Your task to perform on an android device: open app "Mercado Libre" (install if not already installed) Image 0: 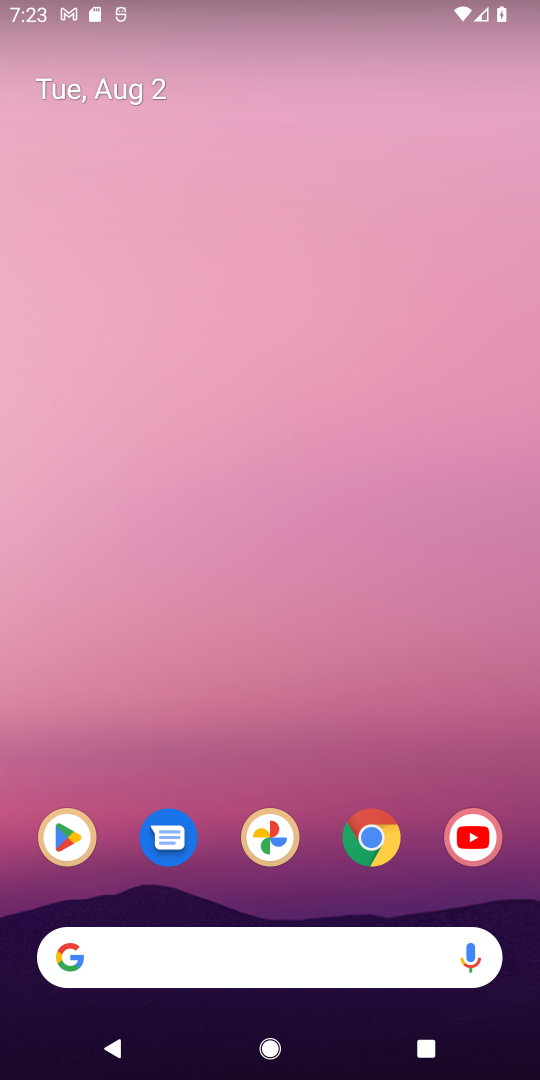
Step 0: drag from (251, 796) to (284, 203)
Your task to perform on an android device: open app "Mercado Libre" (install if not already installed) Image 1: 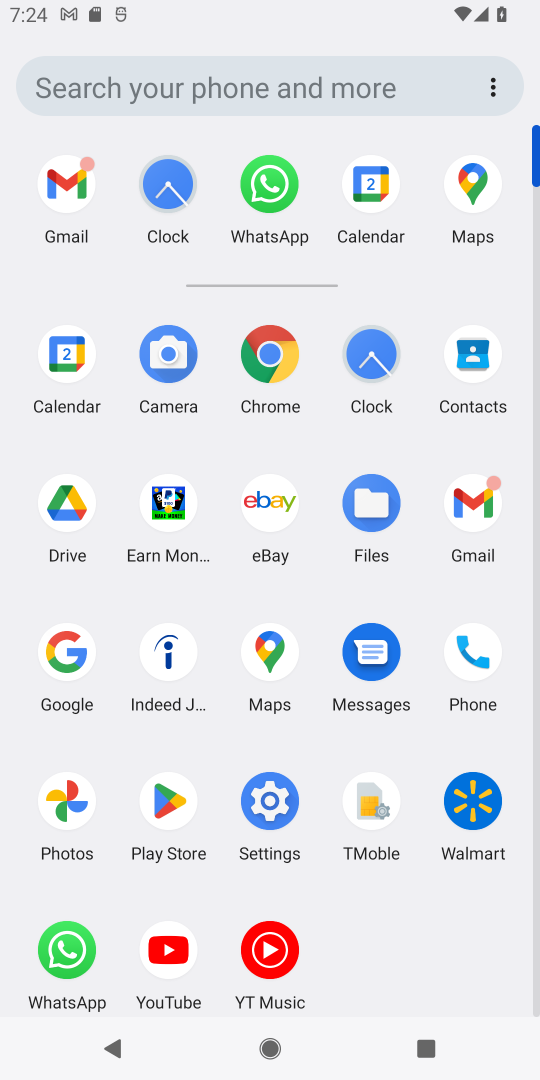
Step 1: click (161, 788)
Your task to perform on an android device: open app "Mercado Libre" (install if not already installed) Image 2: 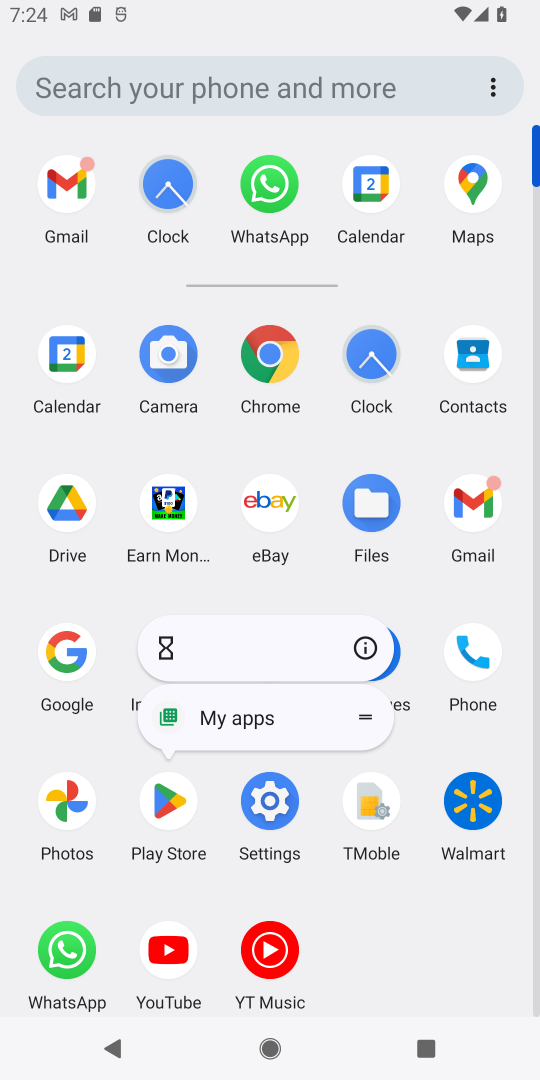
Step 2: click (360, 648)
Your task to perform on an android device: open app "Mercado Libre" (install if not already installed) Image 3: 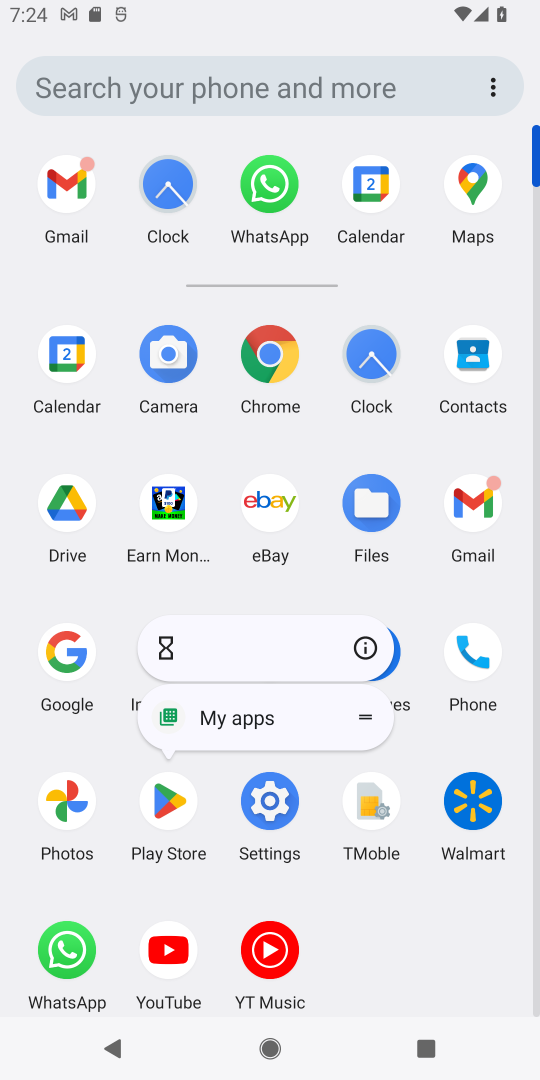
Step 3: click (359, 646)
Your task to perform on an android device: open app "Mercado Libre" (install if not already installed) Image 4: 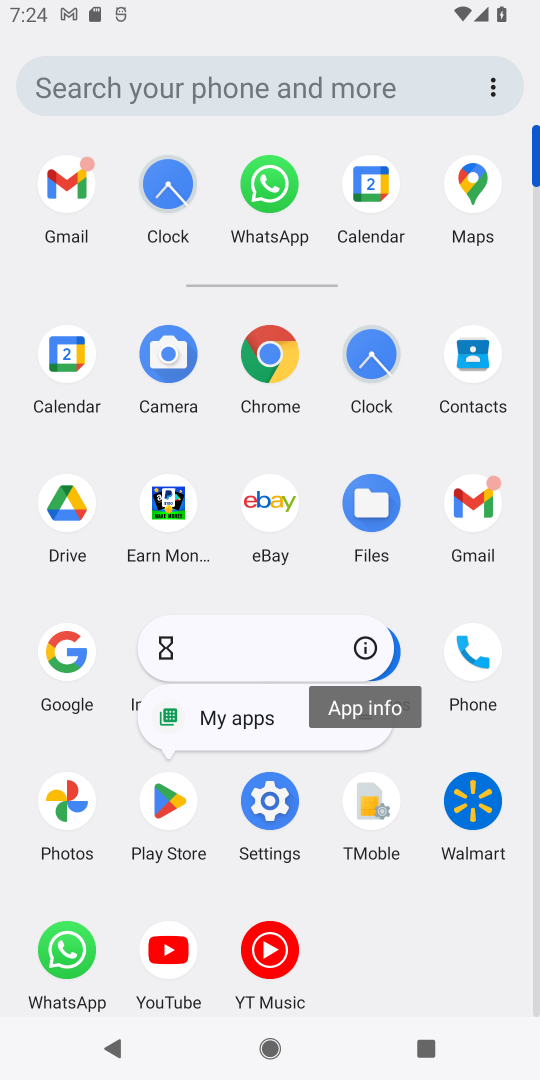
Step 4: click (359, 649)
Your task to perform on an android device: open app "Mercado Libre" (install if not already installed) Image 5: 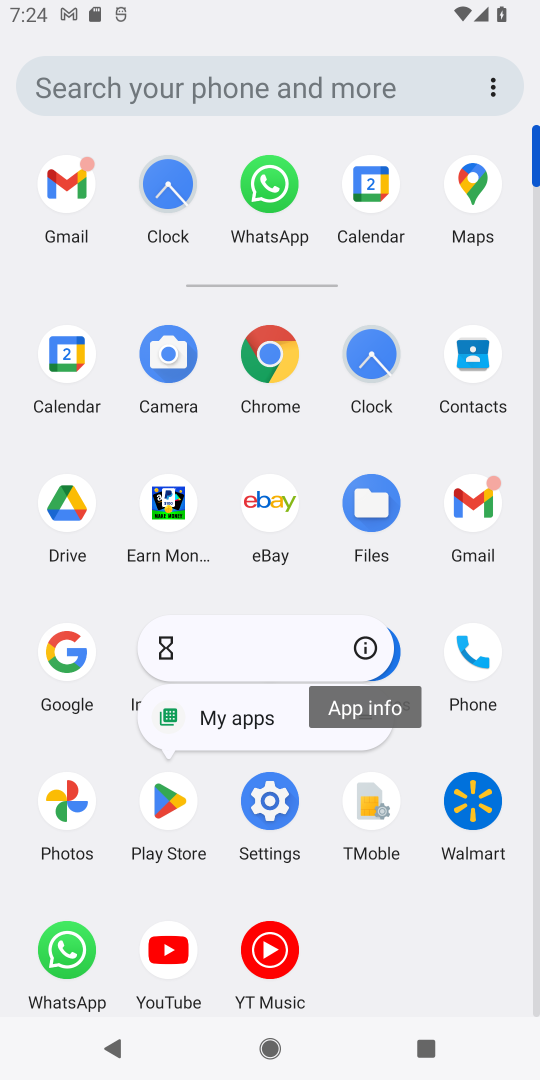
Step 5: click (359, 649)
Your task to perform on an android device: open app "Mercado Libre" (install if not already installed) Image 6: 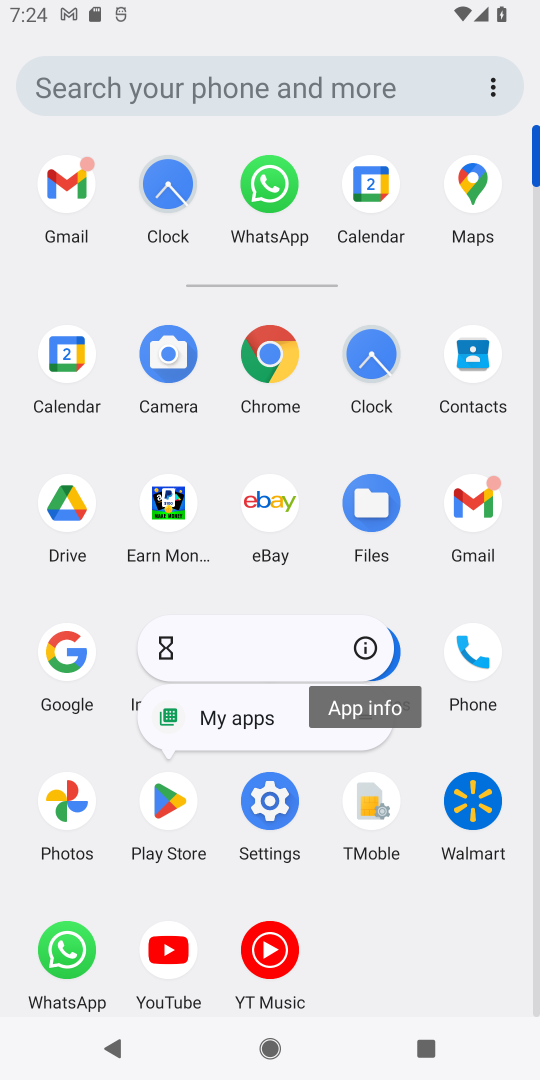
Step 6: click (359, 649)
Your task to perform on an android device: open app "Mercado Libre" (install if not already installed) Image 7: 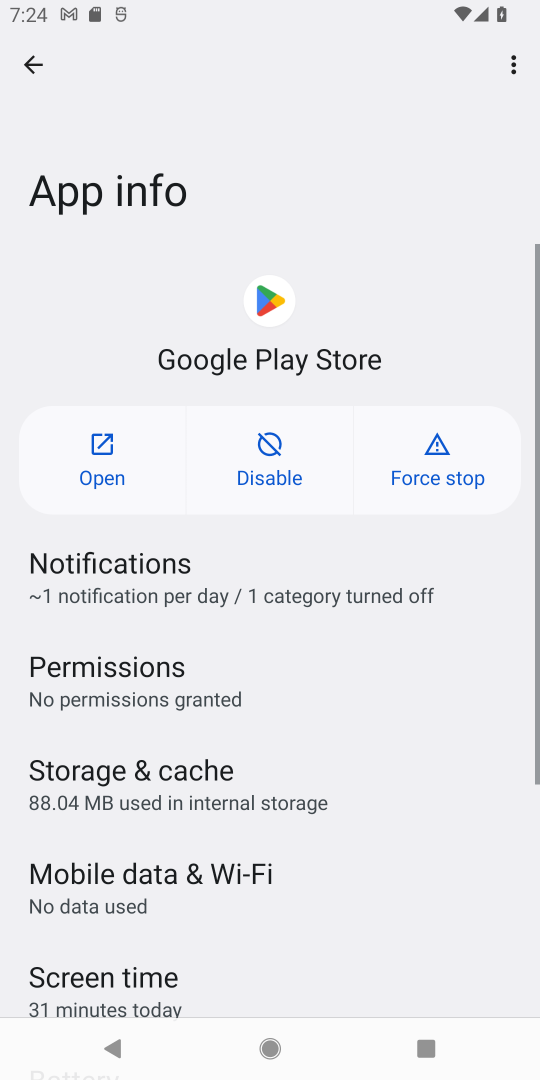
Step 7: click (105, 462)
Your task to perform on an android device: open app "Mercado Libre" (install if not already installed) Image 8: 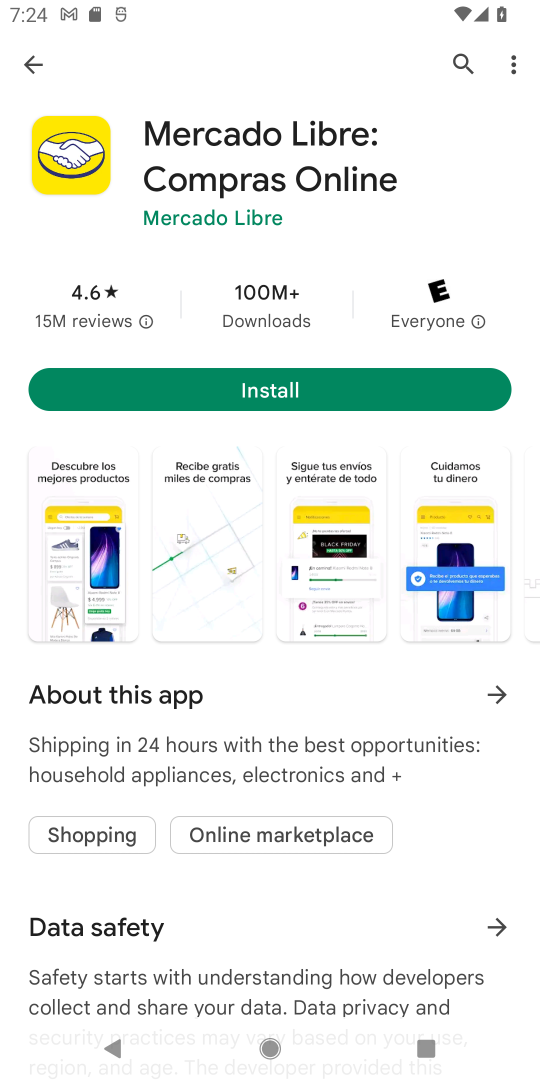
Step 8: click (212, 377)
Your task to perform on an android device: open app "Mercado Libre" (install if not already installed) Image 9: 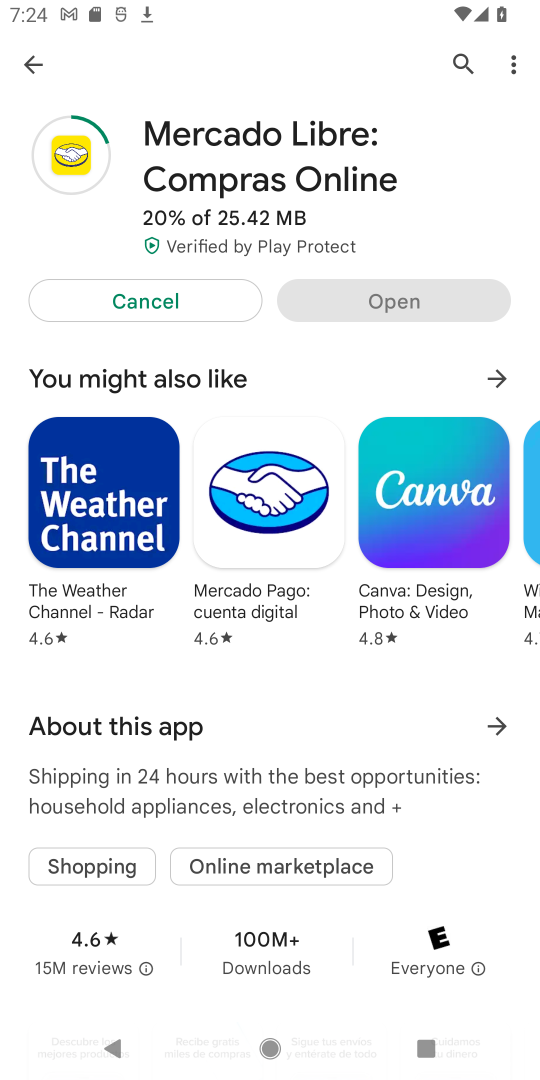
Step 9: drag from (307, 182) to (237, 701)
Your task to perform on an android device: open app "Mercado Libre" (install if not already installed) Image 10: 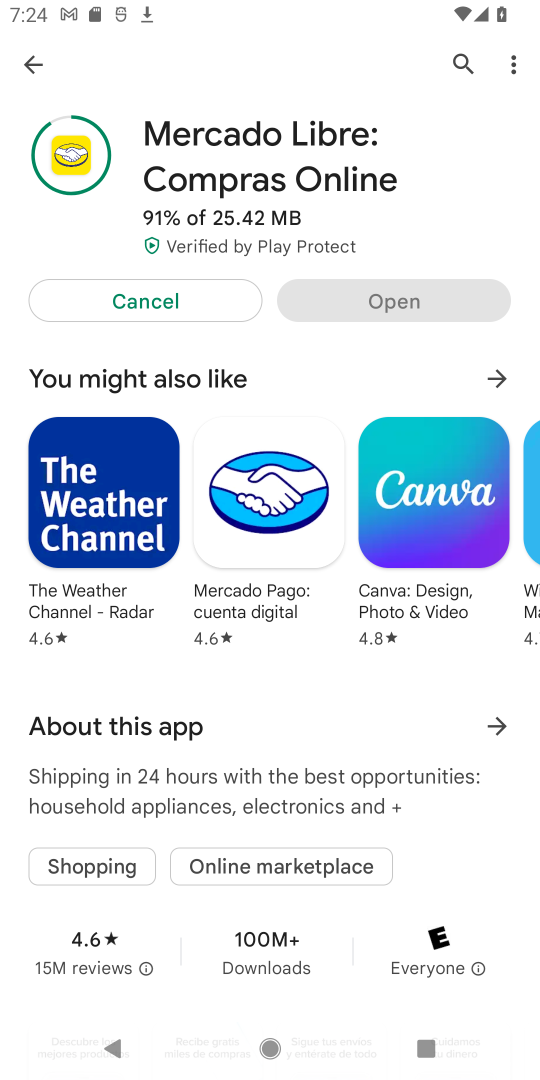
Step 10: drag from (330, 201) to (185, 816)
Your task to perform on an android device: open app "Mercado Libre" (install if not already installed) Image 11: 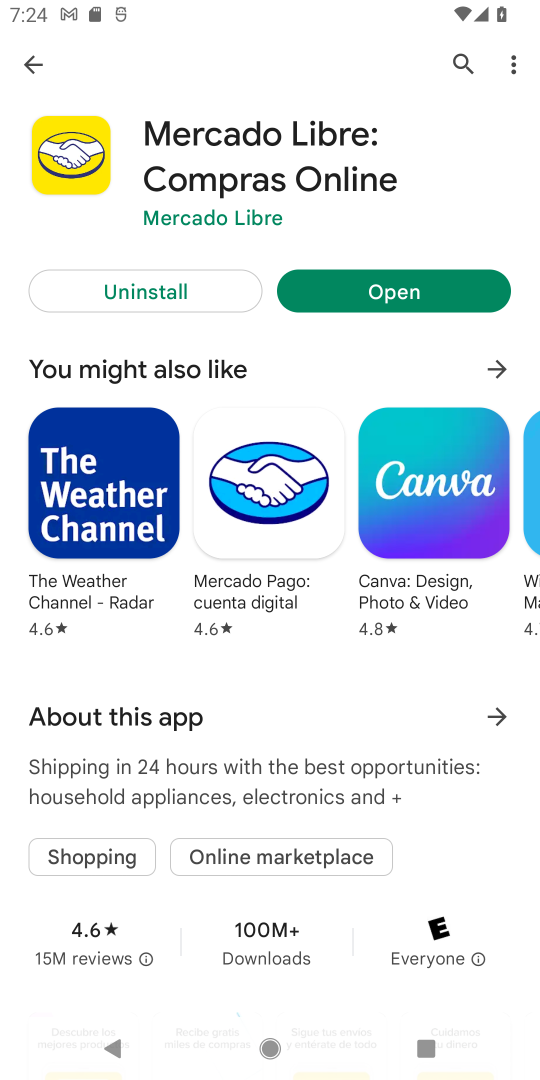
Step 11: click (347, 281)
Your task to perform on an android device: open app "Mercado Libre" (install if not already installed) Image 12: 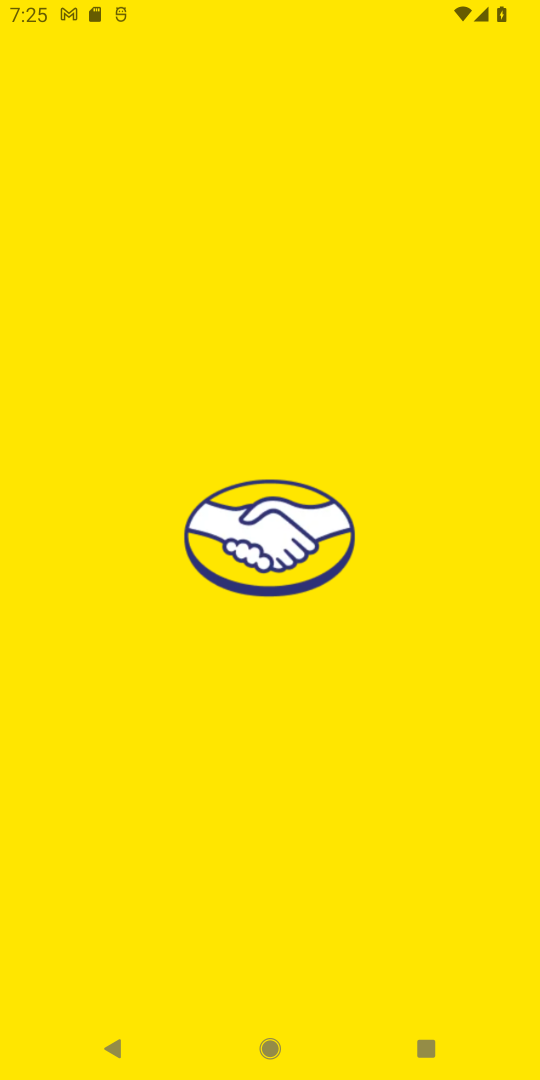
Step 12: task complete